Your task to perform on an android device: delete location history Image 0: 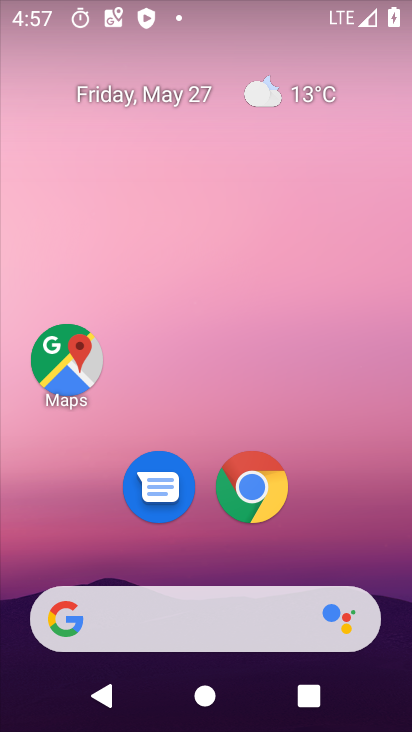
Step 0: drag from (343, 498) to (302, 106)
Your task to perform on an android device: delete location history Image 1: 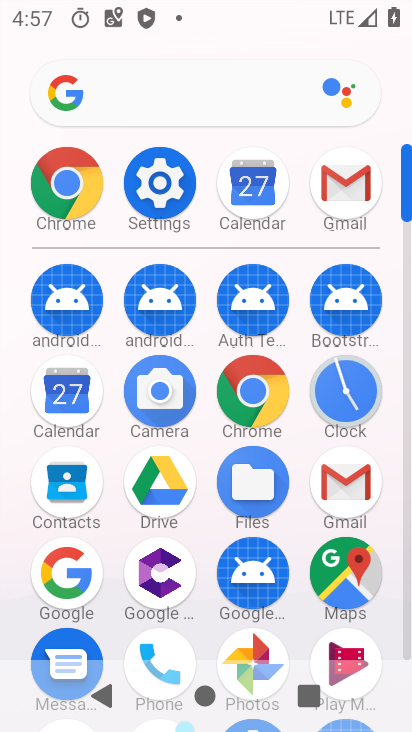
Step 1: click (167, 163)
Your task to perform on an android device: delete location history Image 2: 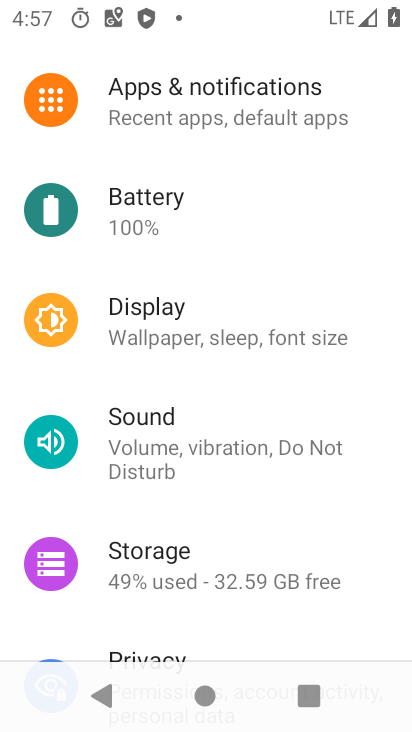
Step 2: drag from (209, 526) to (248, 76)
Your task to perform on an android device: delete location history Image 3: 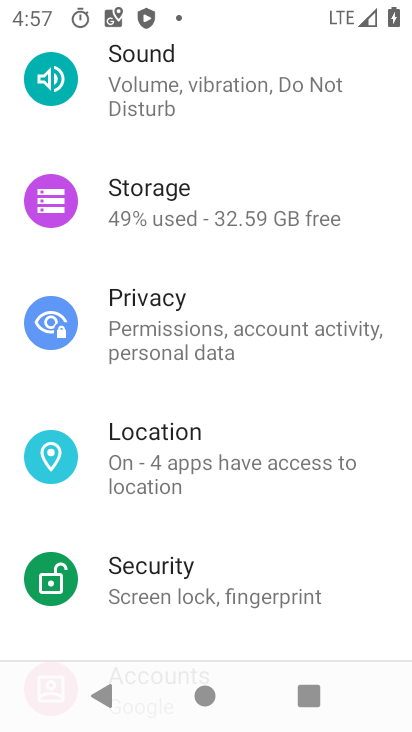
Step 3: drag from (207, 428) to (340, 187)
Your task to perform on an android device: delete location history Image 4: 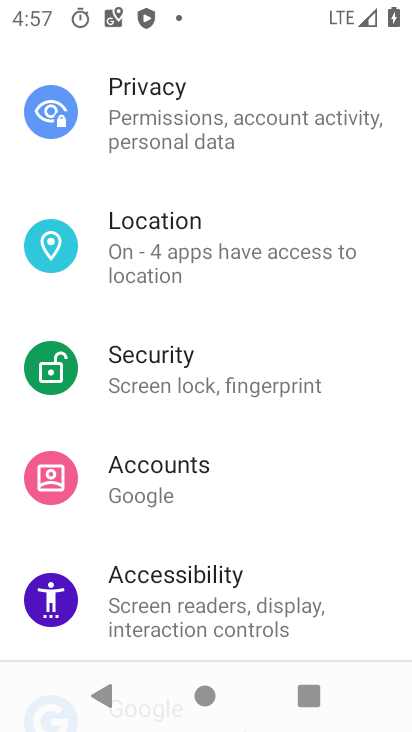
Step 4: click (201, 257)
Your task to perform on an android device: delete location history Image 5: 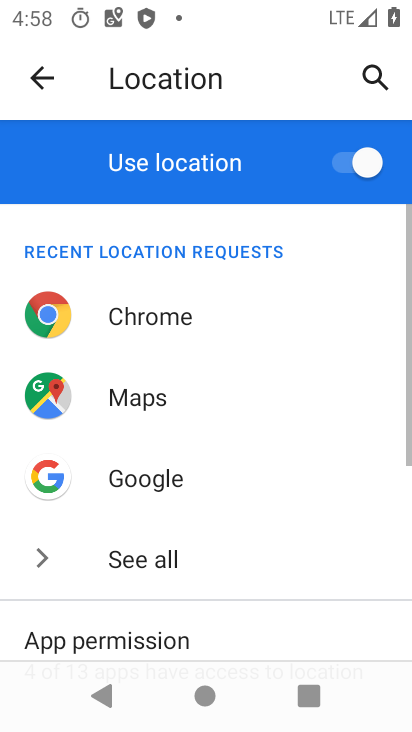
Step 5: click (142, 401)
Your task to perform on an android device: delete location history Image 6: 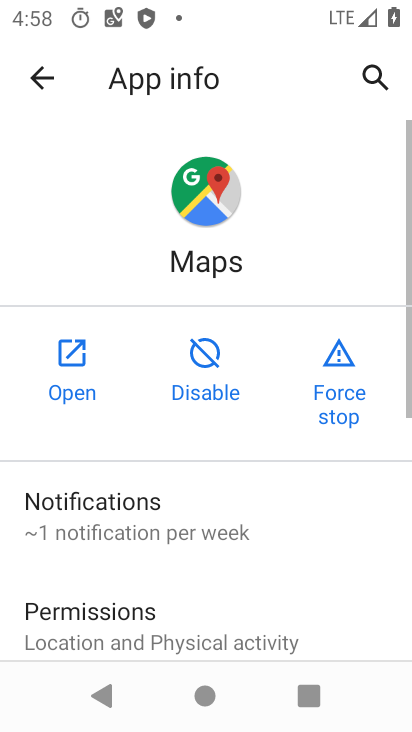
Step 6: click (85, 368)
Your task to perform on an android device: delete location history Image 7: 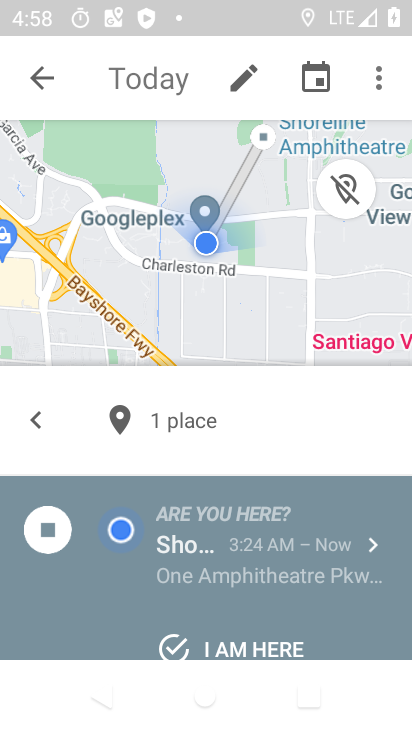
Step 7: click (27, 71)
Your task to perform on an android device: delete location history Image 8: 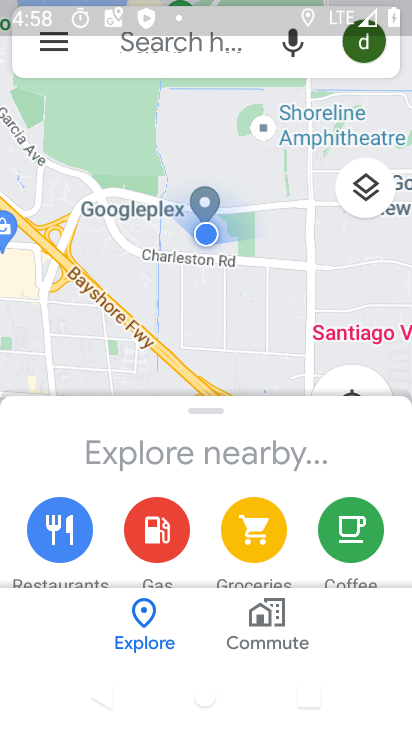
Step 8: click (28, 70)
Your task to perform on an android device: delete location history Image 9: 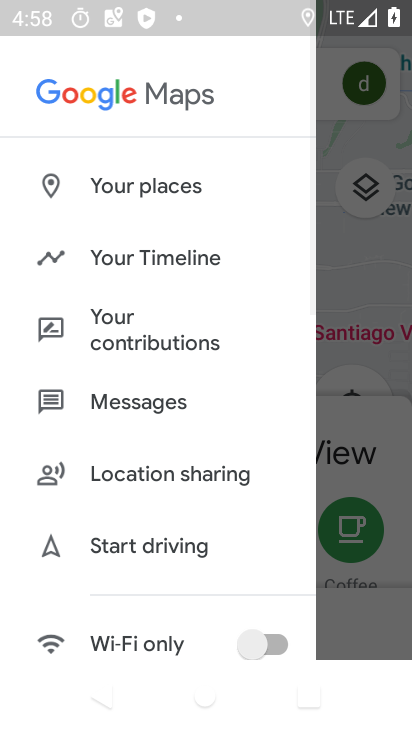
Step 9: drag from (106, 477) to (168, 164)
Your task to perform on an android device: delete location history Image 10: 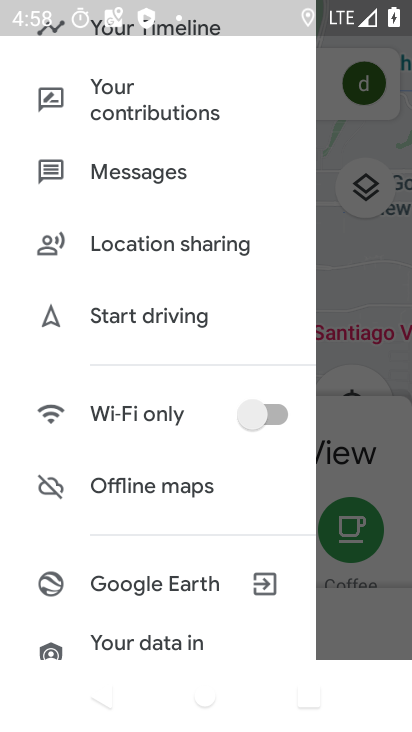
Step 10: drag from (146, 578) to (229, 105)
Your task to perform on an android device: delete location history Image 11: 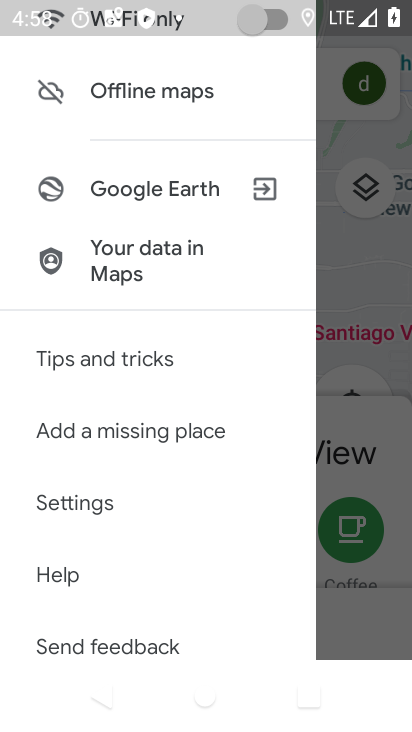
Step 11: click (90, 508)
Your task to perform on an android device: delete location history Image 12: 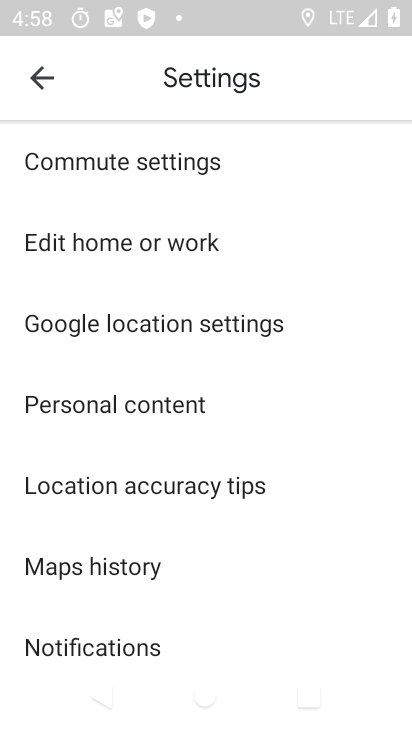
Step 12: click (68, 555)
Your task to perform on an android device: delete location history Image 13: 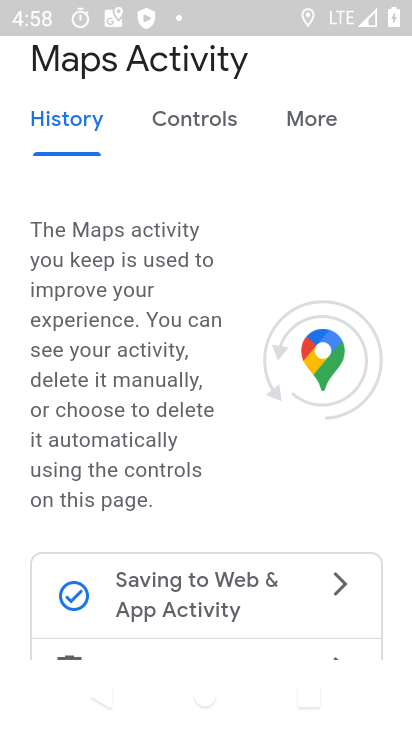
Step 13: drag from (184, 408) to (206, 59)
Your task to perform on an android device: delete location history Image 14: 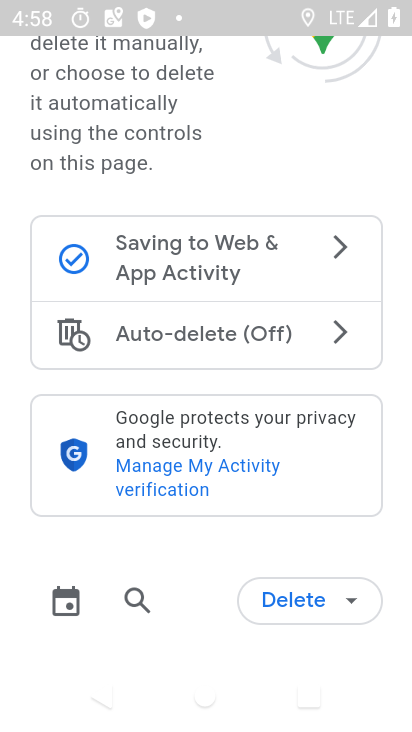
Step 14: click (316, 594)
Your task to perform on an android device: delete location history Image 15: 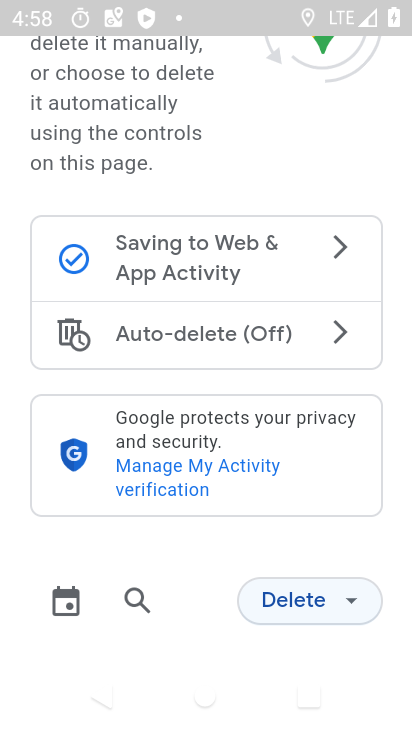
Step 15: click (327, 622)
Your task to perform on an android device: delete location history Image 16: 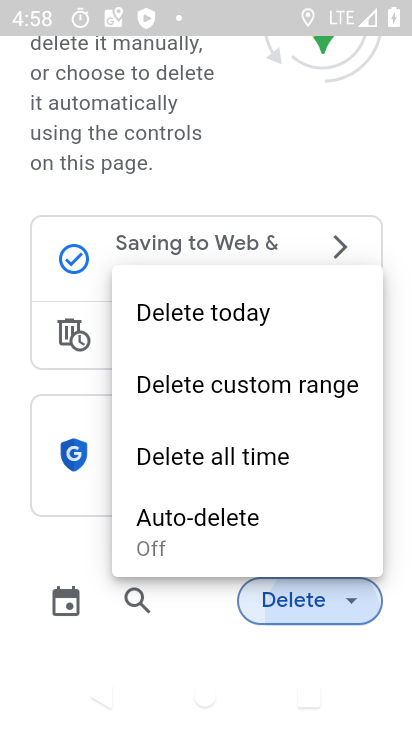
Step 16: click (347, 604)
Your task to perform on an android device: delete location history Image 17: 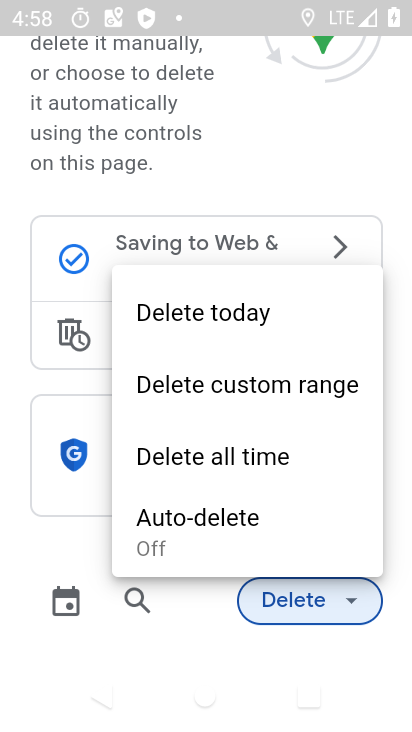
Step 17: click (349, 602)
Your task to perform on an android device: delete location history Image 18: 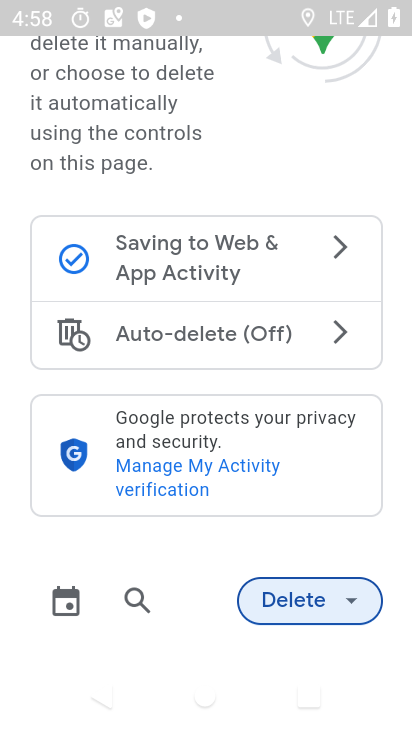
Step 18: click (350, 601)
Your task to perform on an android device: delete location history Image 19: 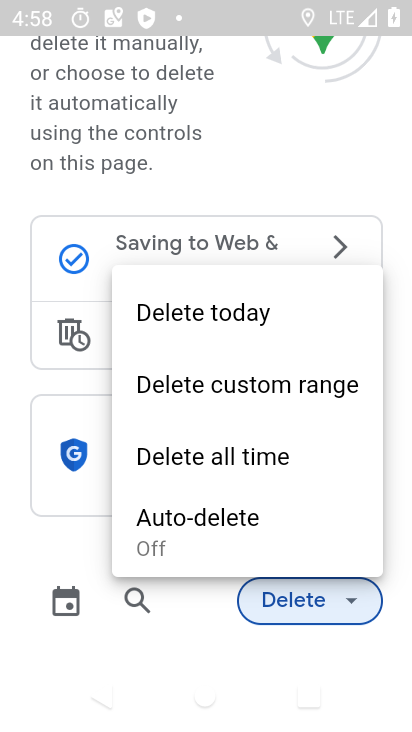
Step 19: click (292, 458)
Your task to perform on an android device: delete location history Image 20: 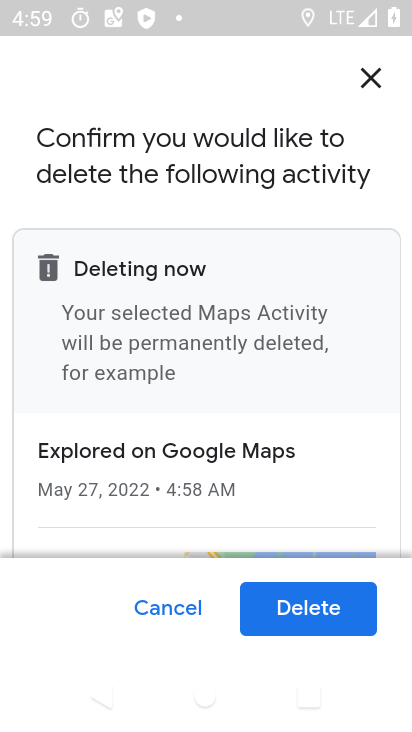
Step 20: click (311, 611)
Your task to perform on an android device: delete location history Image 21: 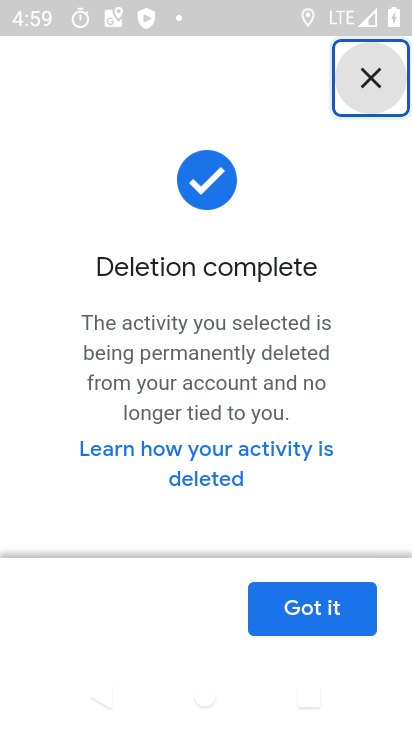
Step 21: task complete